Your task to perform on an android device: open app "Microsoft Authenticator" (install if not already installed) and enter user name: "Cornell@yahoo.com" and password: "bothersome" Image 0: 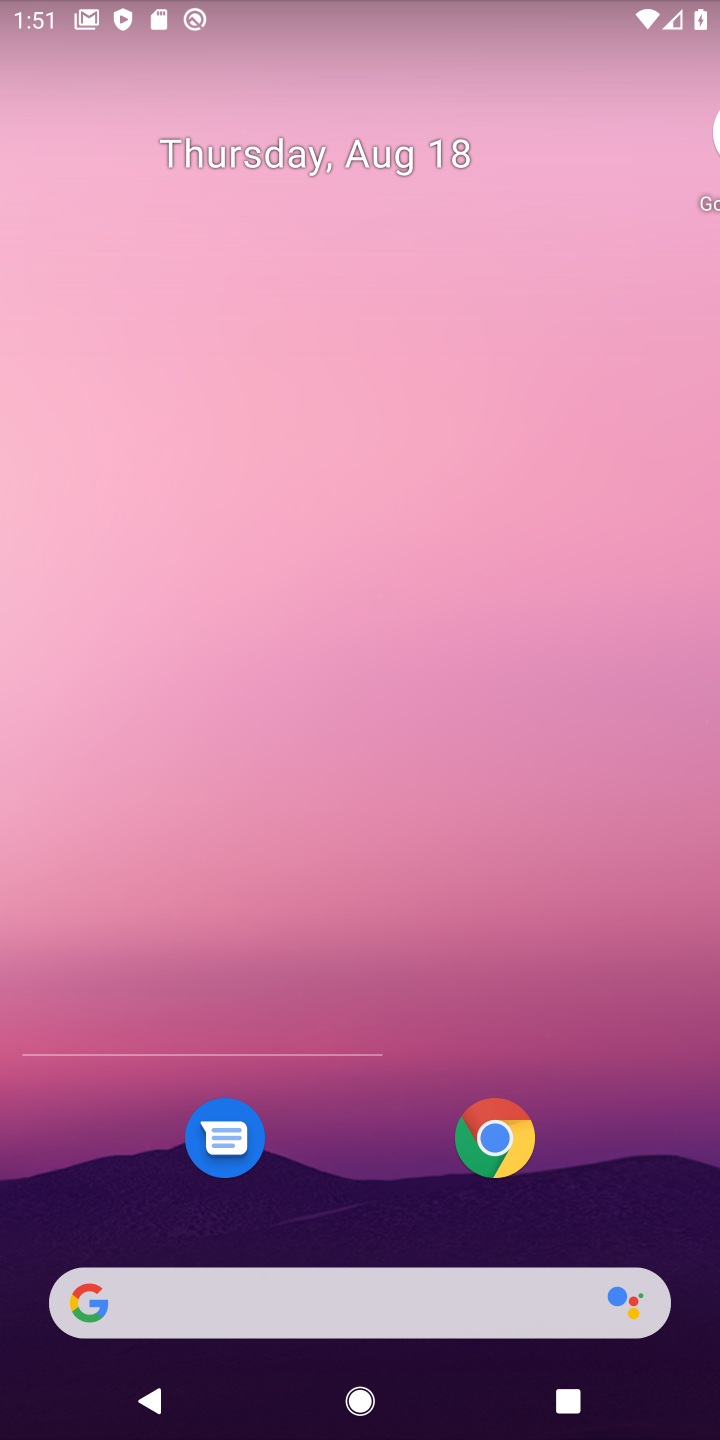
Step 0: press home button
Your task to perform on an android device: open app "Microsoft Authenticator" (install if not already installed) and enter user name: "Cornell@yahoo.com" and password: "bothersome" Image 1: 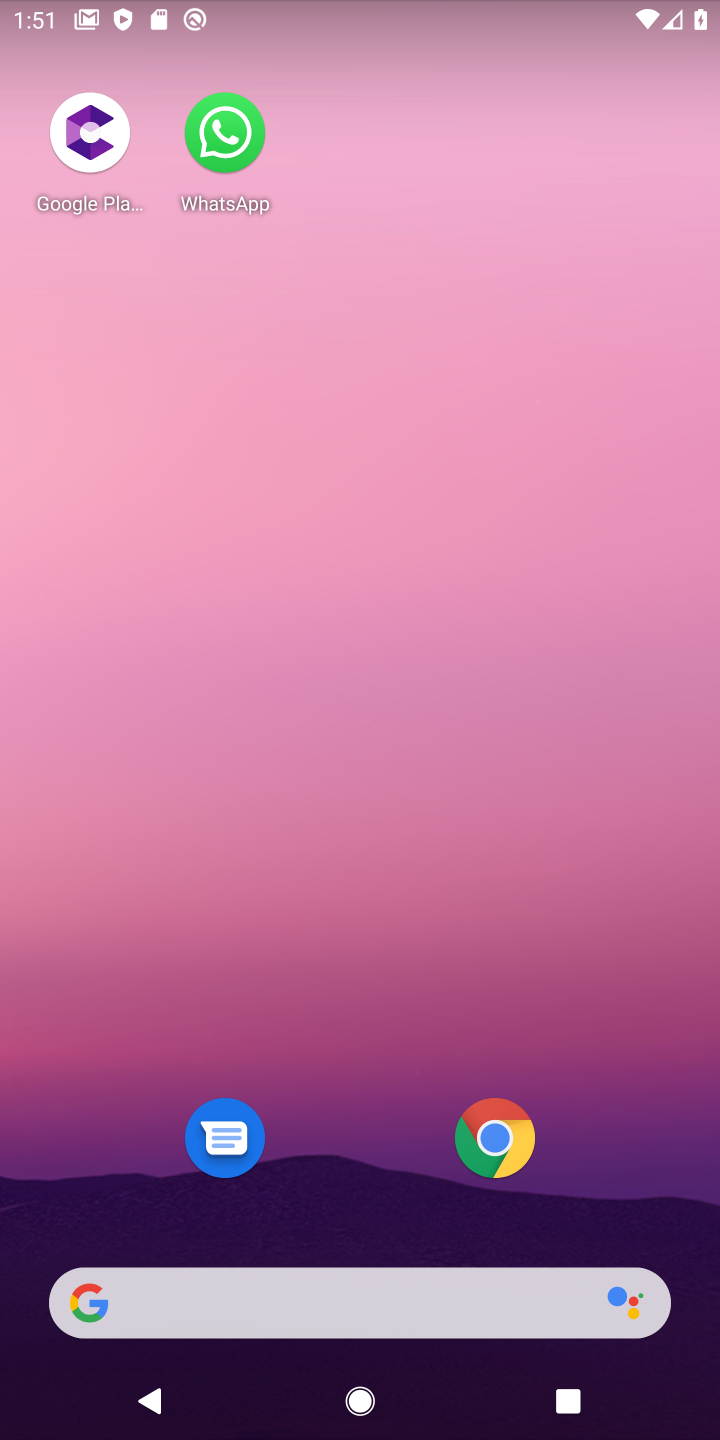
Step 1: drag from (446, 835) to (602, 198)
Your task to perform on an android device: open app "Microsoft Authenticator" (install if not already installed) and enter user name: "Cornell@yahoo.com" and password: "bothersome" Image 2: 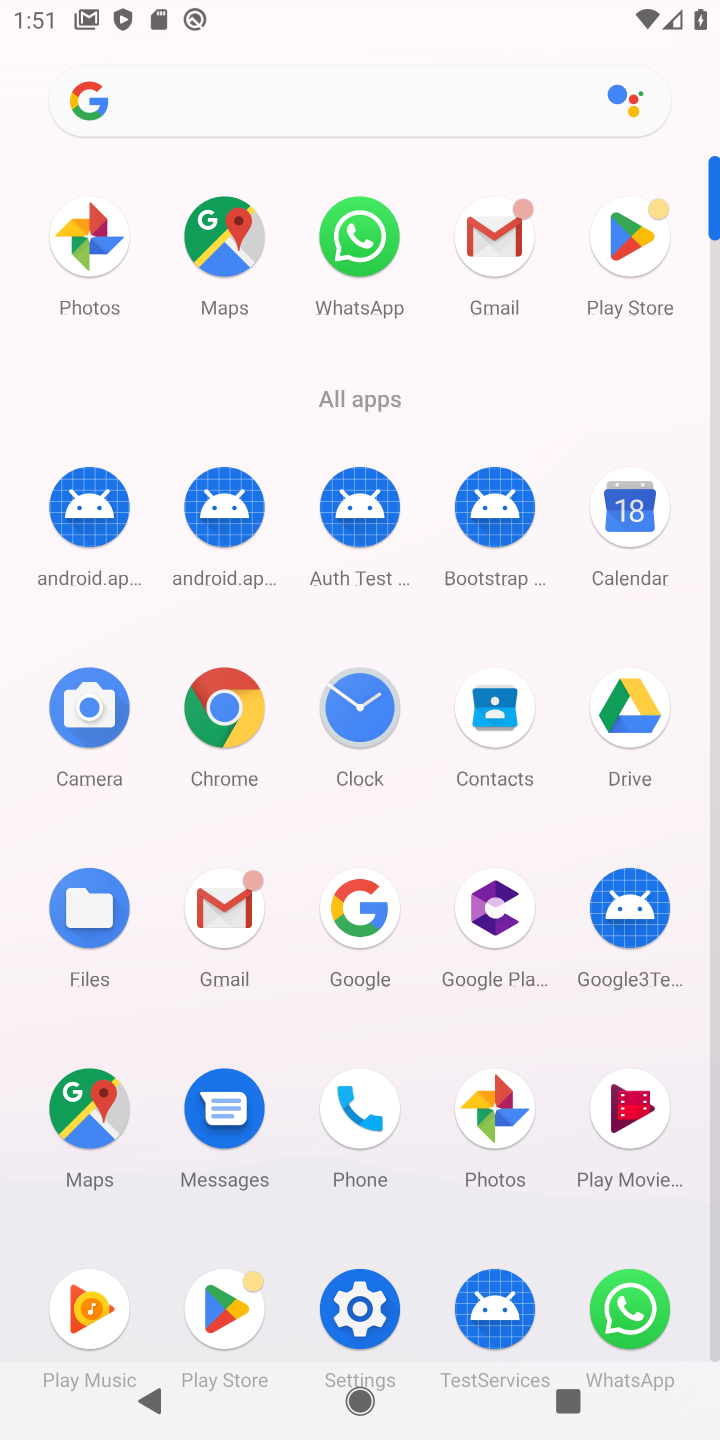
Step 2: click (634, 259)
Your task to perform on an android device: open app "Microsoft Authenticator" (install if not already installed) and enter user name: "Cornell@yahoo.com" and password: "bothersome" Image 3: 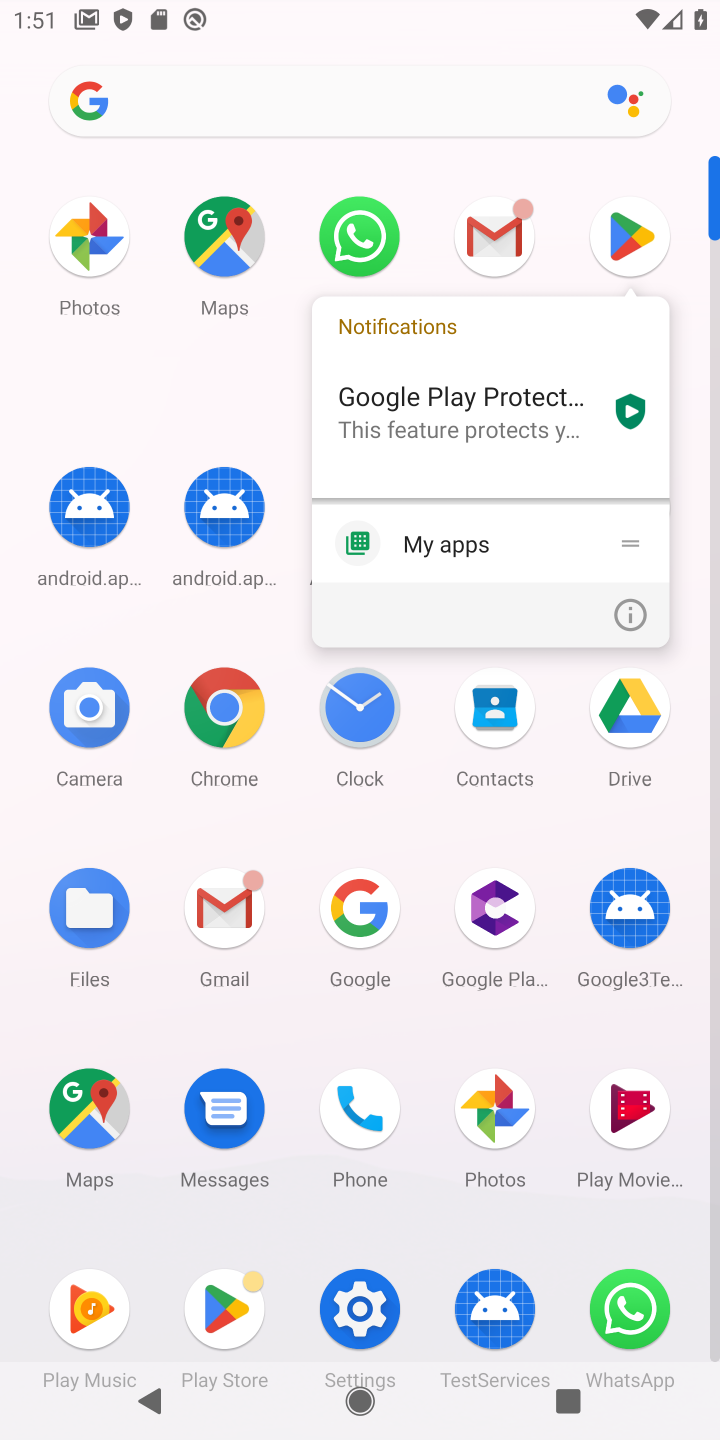
Step 3: click (629, 247)
Your task to perform on an android device: open app "Microsoft Authenticator" (install if not already installed) and enter user name: "Cornell@yahoo.com" and password: "bothersome" Image 4: 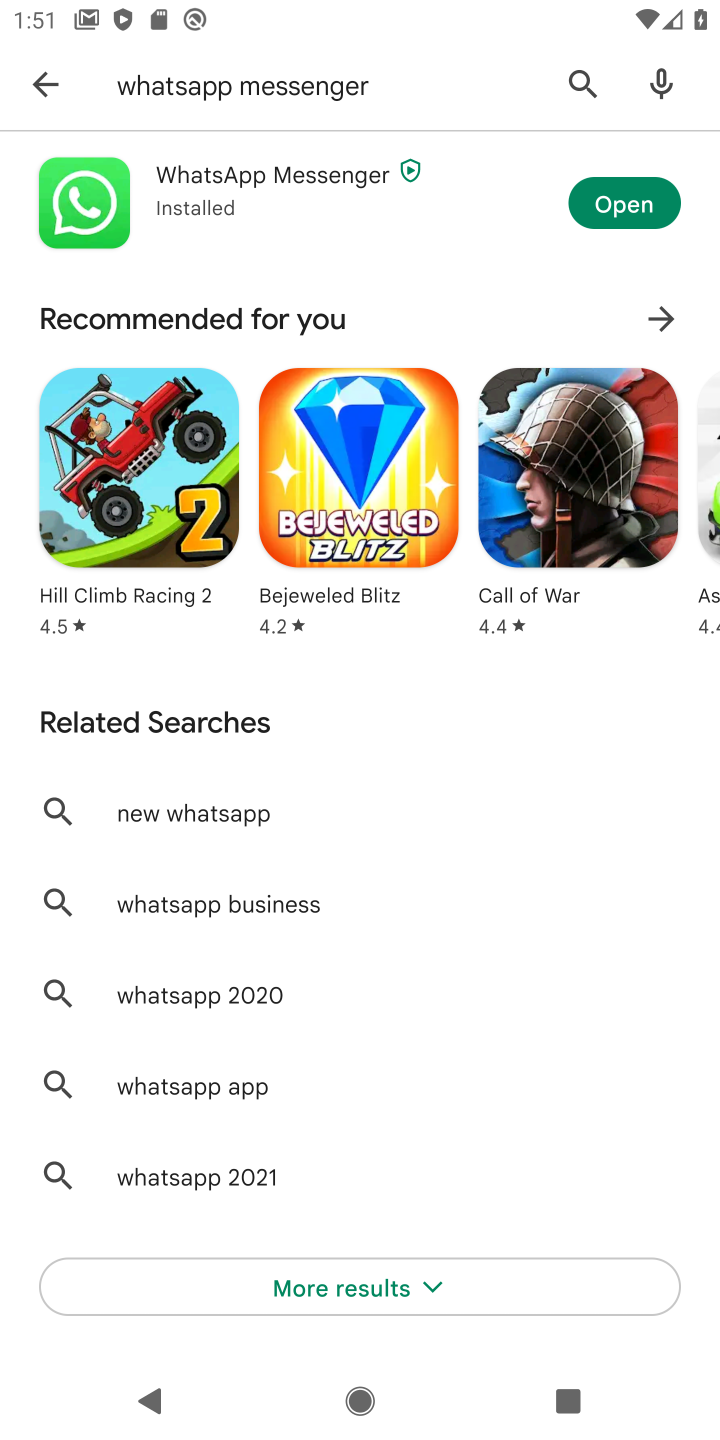
Step 4: click (49, 92)
Your task to perform on an android device: open app "Microsoft Authenticator" (install if not already installed) and enter user name: "Cornell@yahoo.com" and password: "bothersome" Image 5: 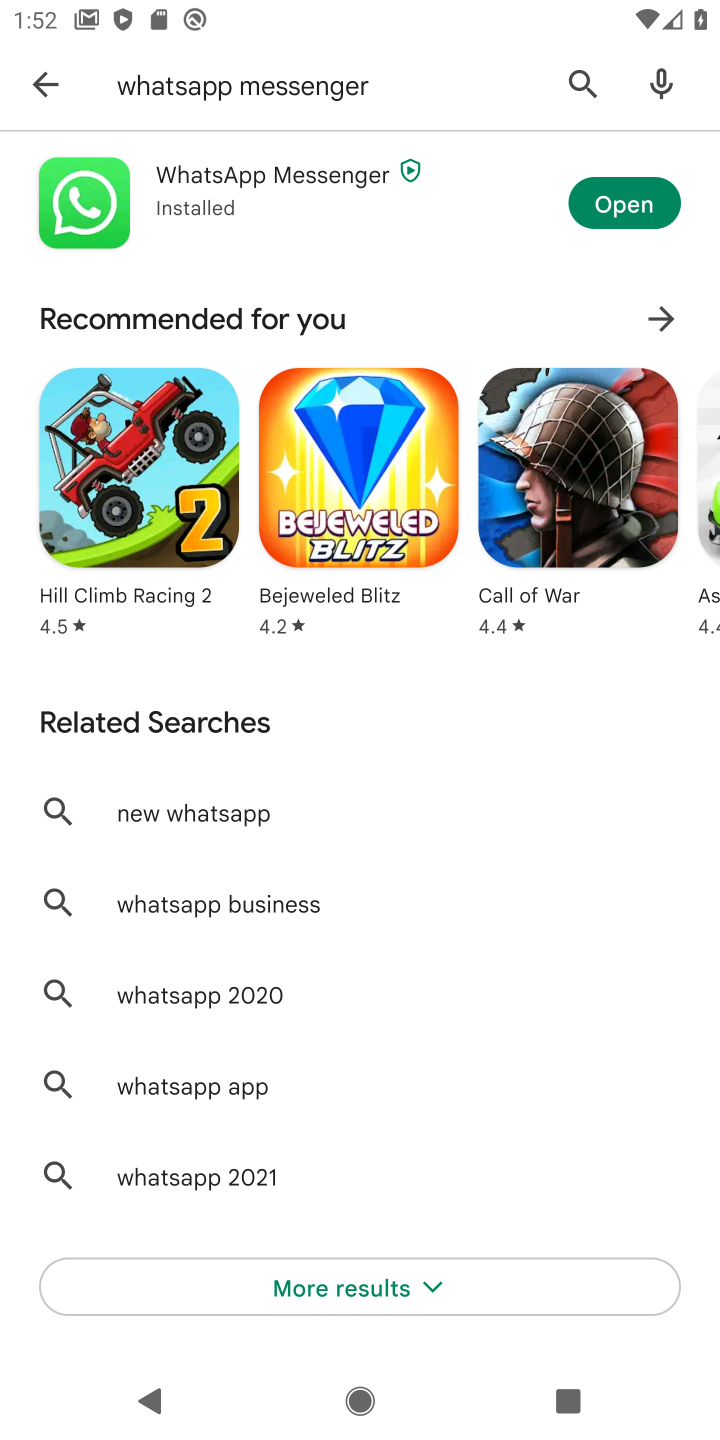
Step 5: click (49, 92)
Your task to perform on an android device: open app "Microsoft Authenticator" (install if not already installed) and enter user name: "Cornell@yahoo.com" and password: "bothersome" Image 6: 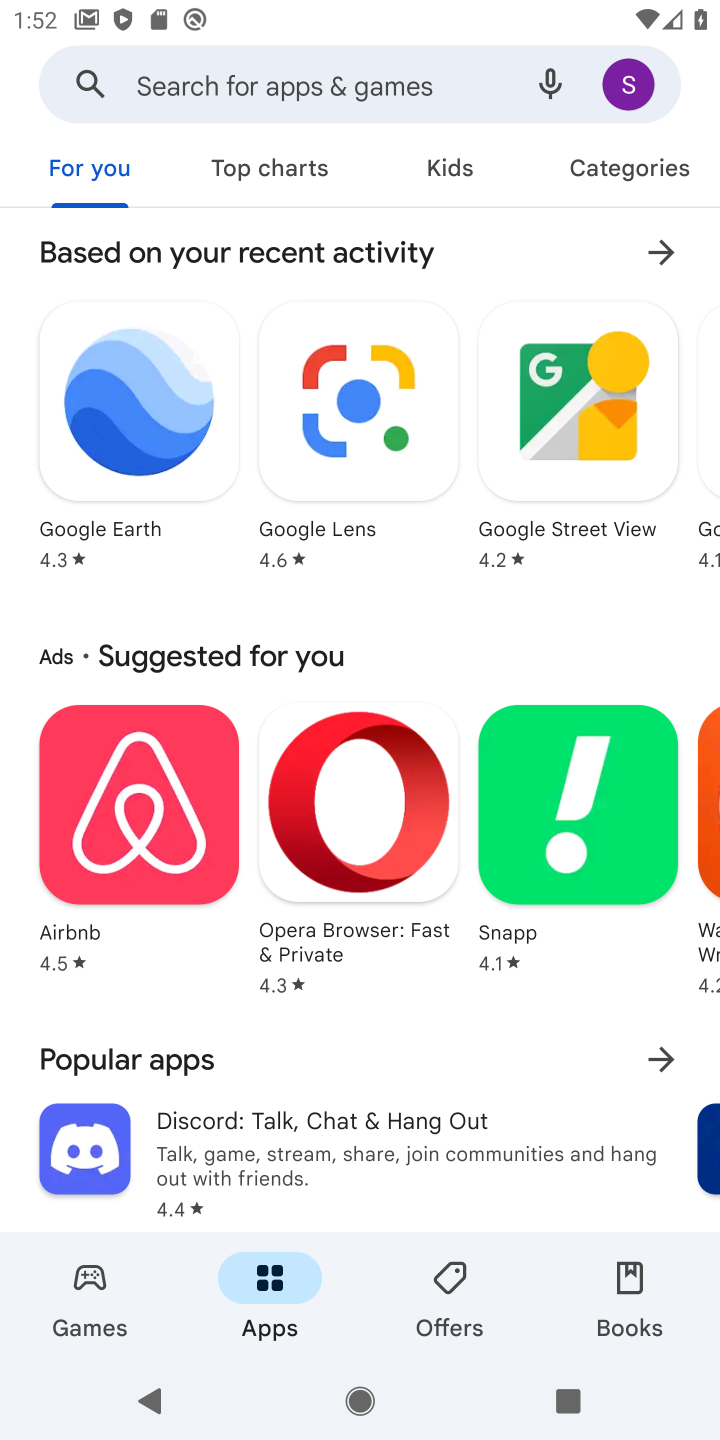
Step 6: click (176, 82)
Your task to perform on an android device: open app "Microsoft Authenticator" (install if not already installed) and enter user name: "Cornell@yahoo.com" and password: "bothersome" Image 7: 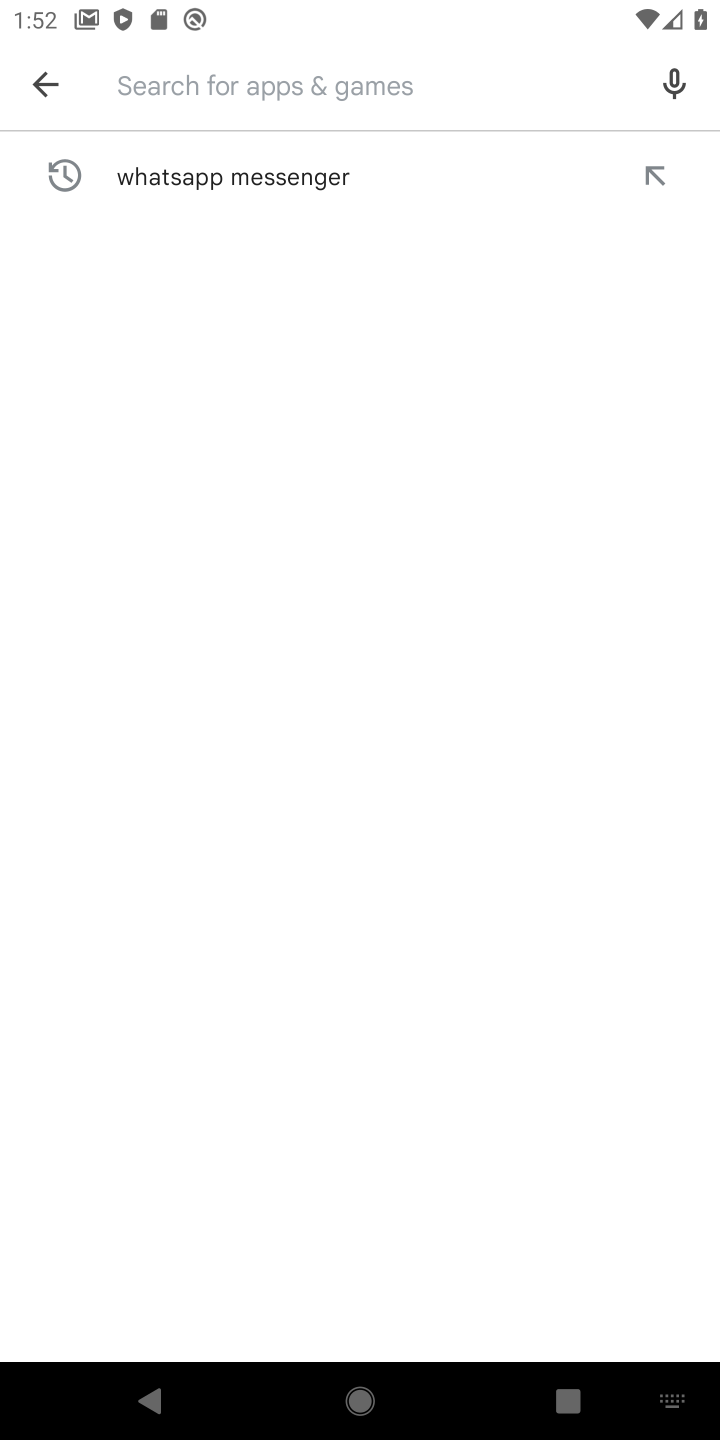
Step 7: type "Microsoft Authenticator"
Your task to perform on an android device: open app "Microsoft Authenticator" (install if not already installed) and enter user name: "Cornell@yahoo.com" and password: "bothersome" Image 8: 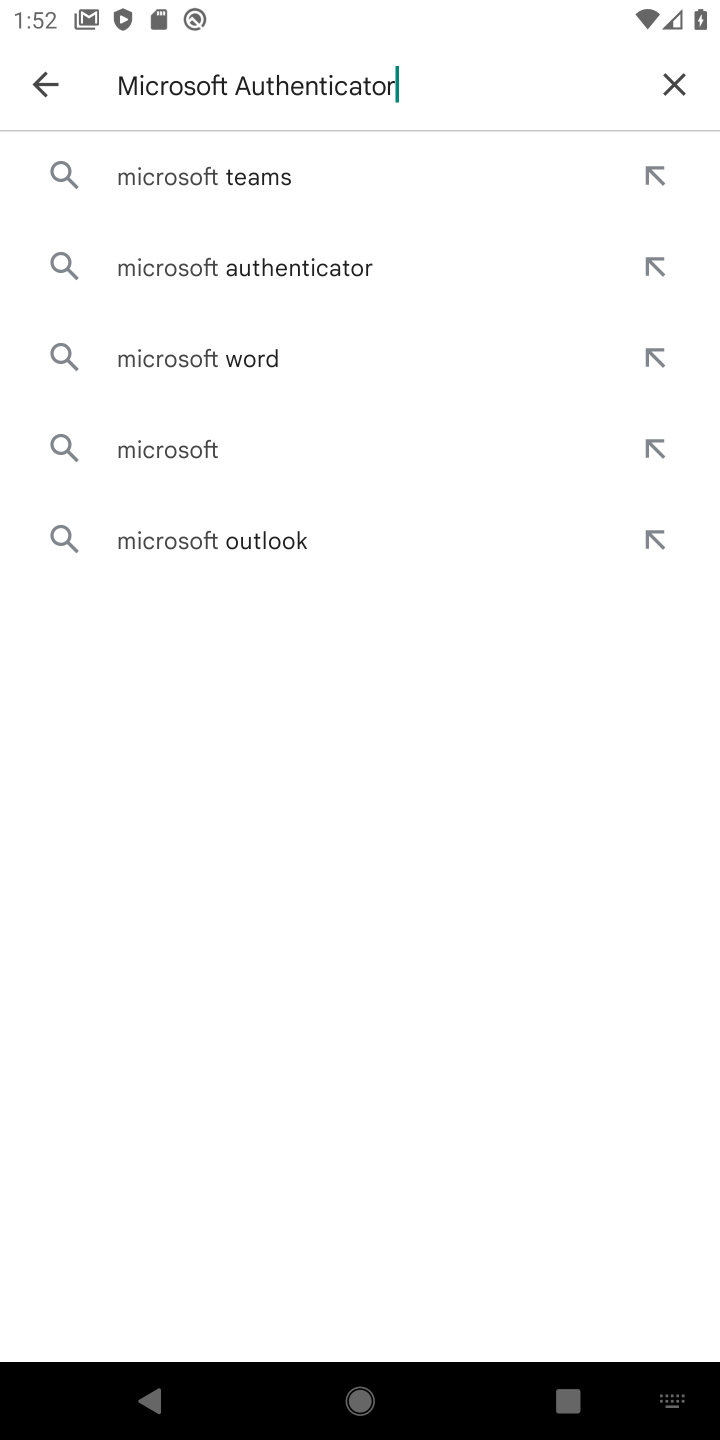
Step 8: type ""
Your task to perform on an android device: open app "Microsoft Authenticator" (install if not already installed) and enter user name: "Cornell@yahoo.com" and password: "bothersome" Image 9: 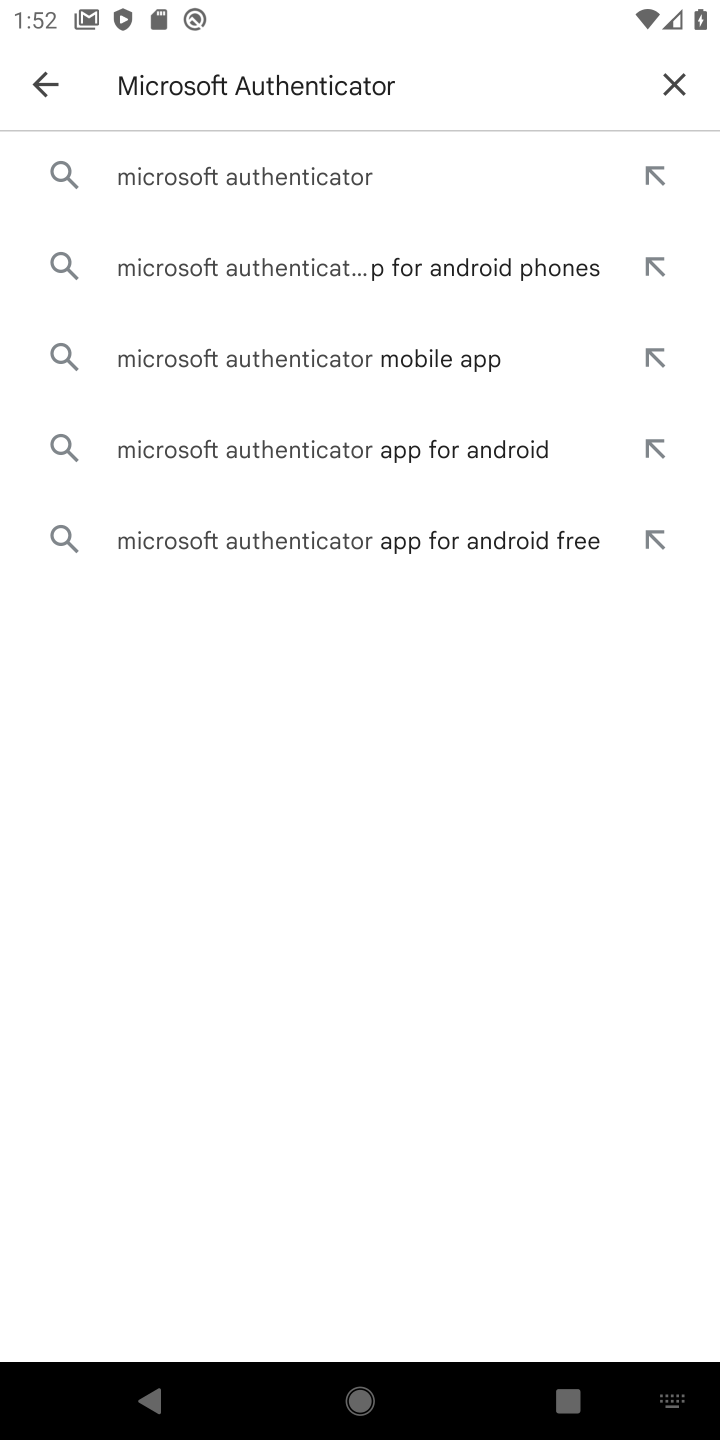
Step 9: click (363, 142)
Your task to perform on an android device: open app "Microsoft Authenticator" (install if not already installed) and enter user name: "Cornell@yahoo.com" and password: "bothersome" Image 10: 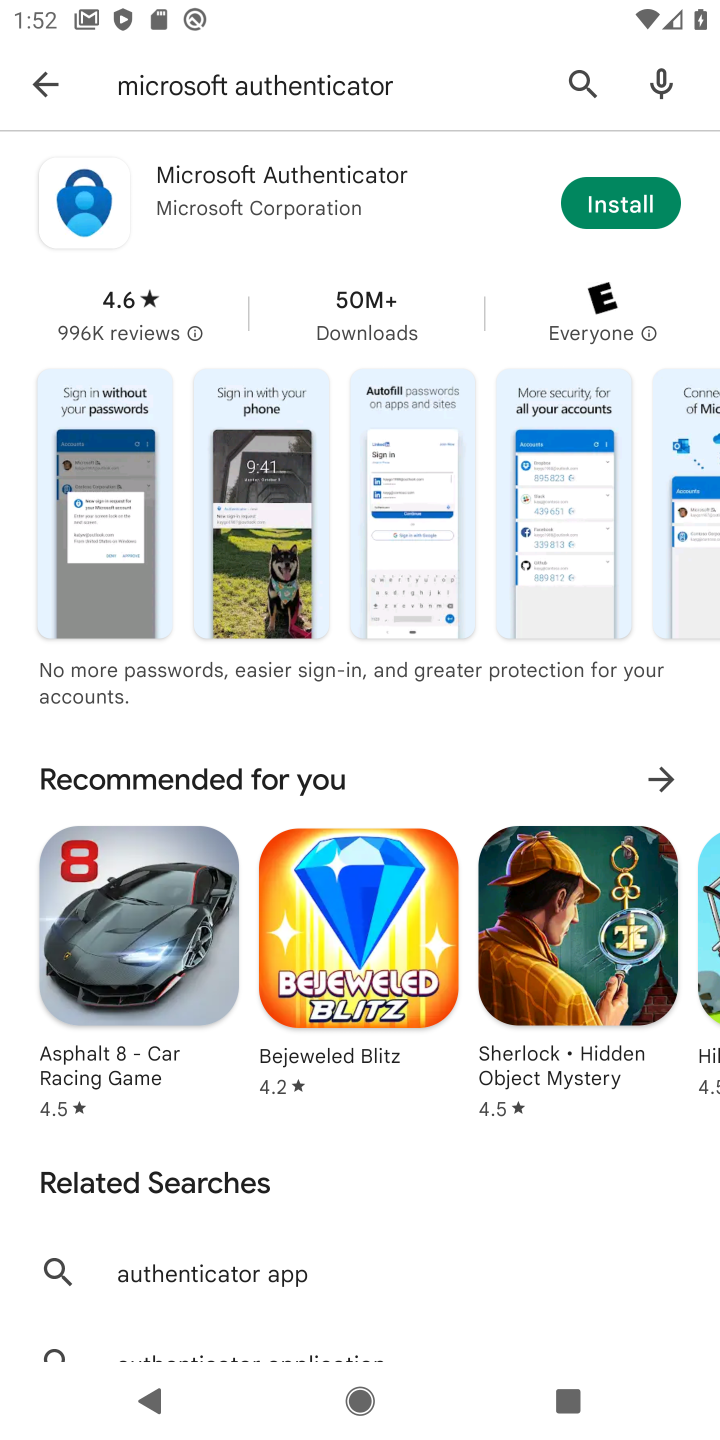
Step 10: click (672, 213)
Your task to perform on an android device: open app "Microsoft Authenticator" (install if not already installed) and enter user name: "Cornell@yahoo.com" and password: "bothersome" Image 11: 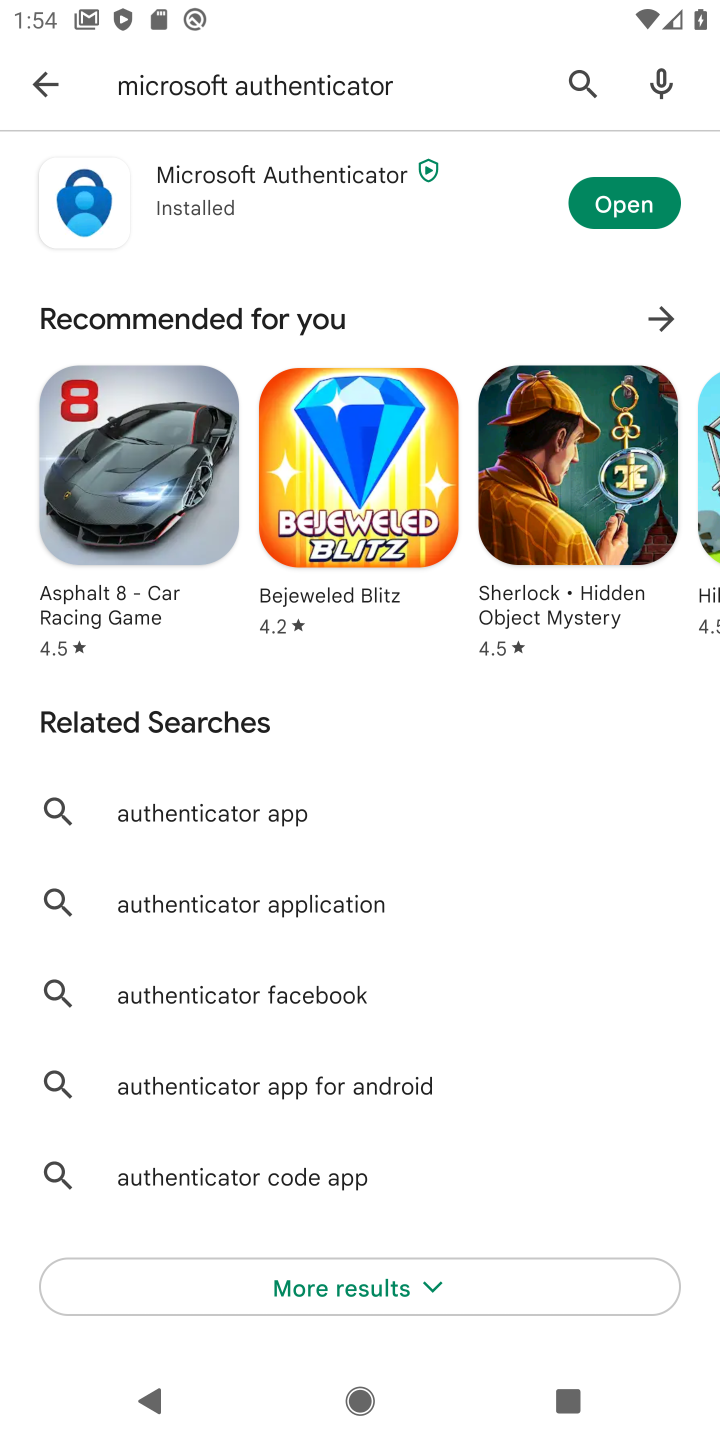
Step 11: click (647, 216)
Your task to perform on an android device: open app "Microsoft Authenticator" (install if not already installed) and enter user name: "Cornell@yahoo.com" and password: "bothersome" Image 12: 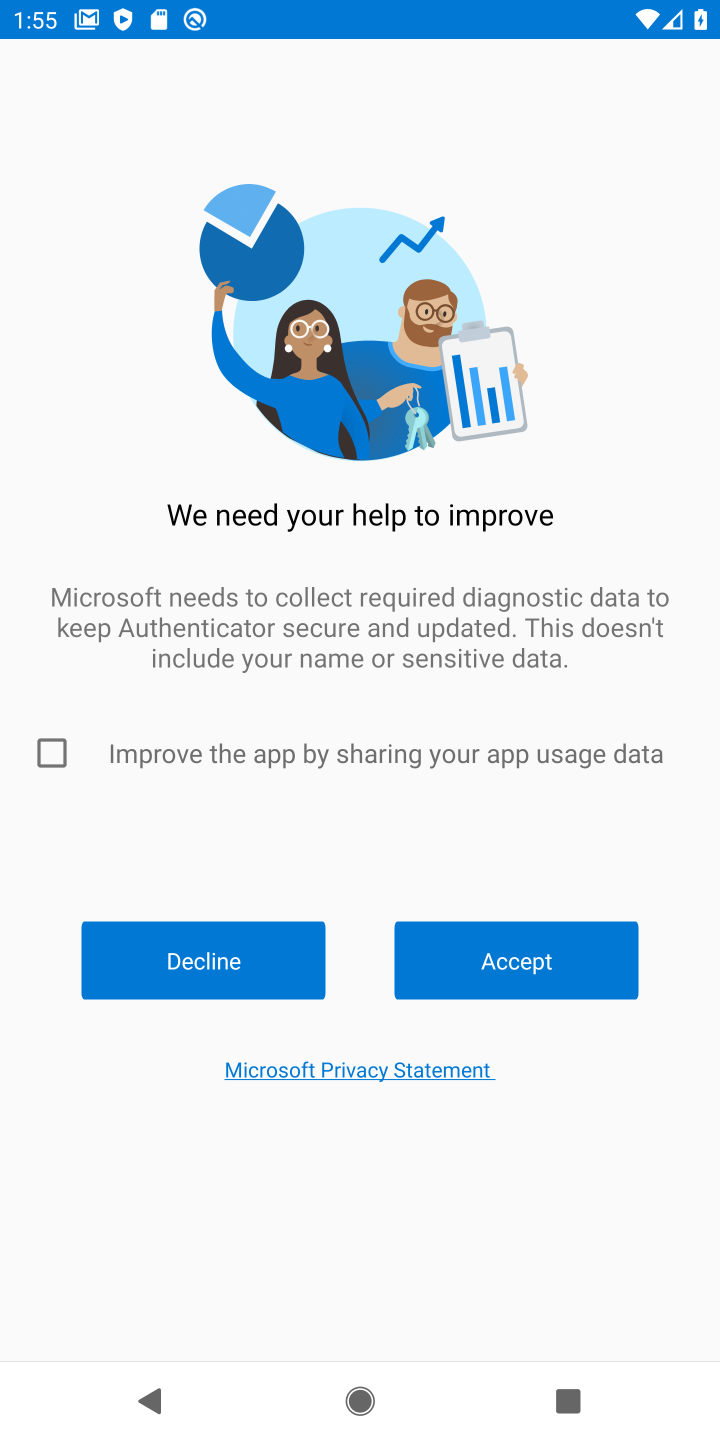
Step 12: task complete